Your task to perform on an android device: Search for Italian restaurants on Maps Image 0: 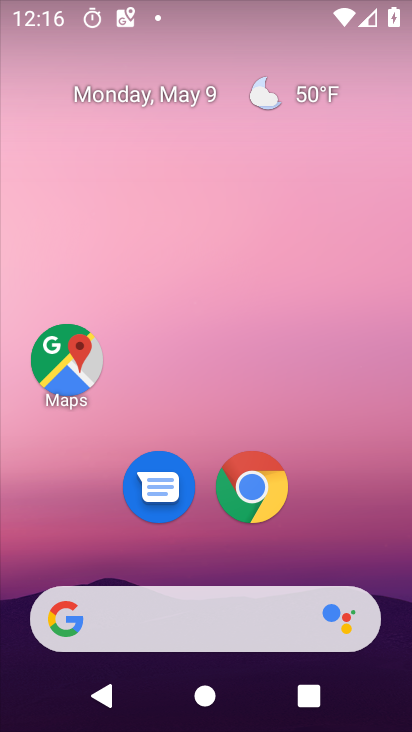
Step 0: click (76, 370)
Your task to perform on an android device: Search for Italian restaurants on Maps Image 1: 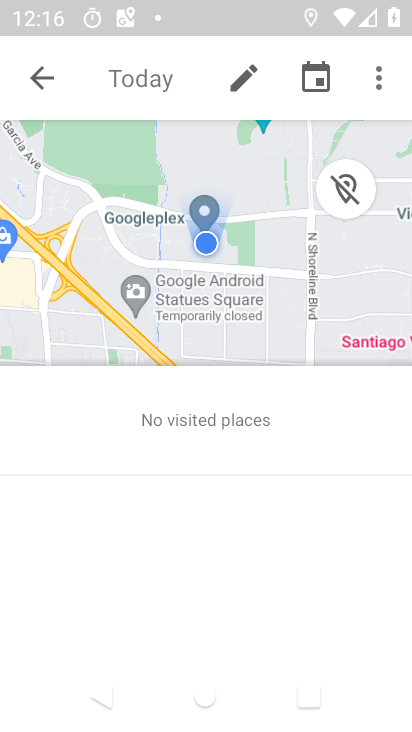
Step 1: press back button
Your task to perform on an android device: Search for Italian restaurants on Maps Image 2: 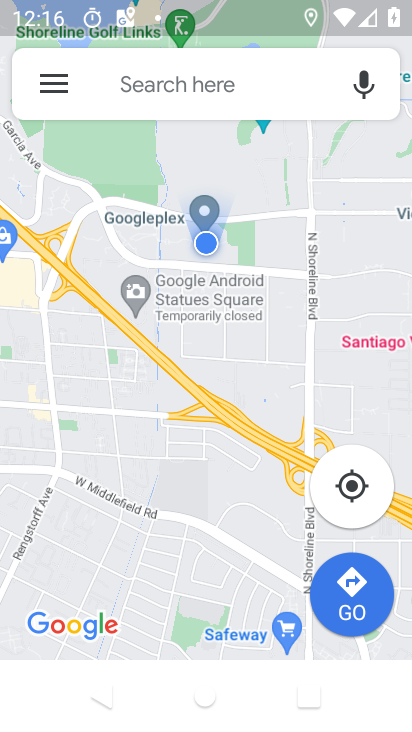
Step 2: click (169, 85)
Your task to perform on an android device: Search for Italian restaurants on Maps Image 3: 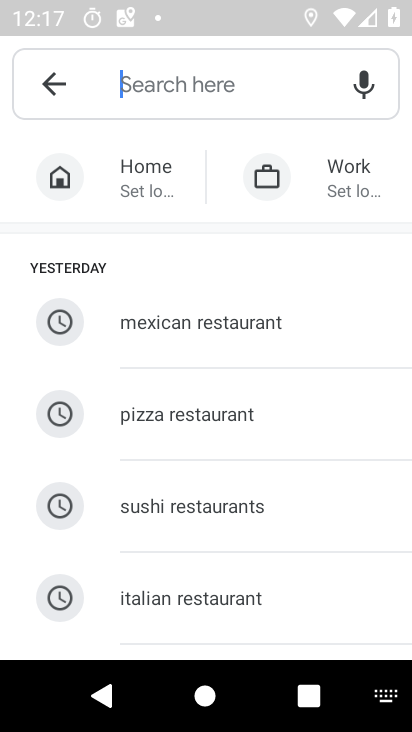
Step 3: click (237, 599)
Your task to perform on an android device: Search for Italian restaurants on Maps Image 4: 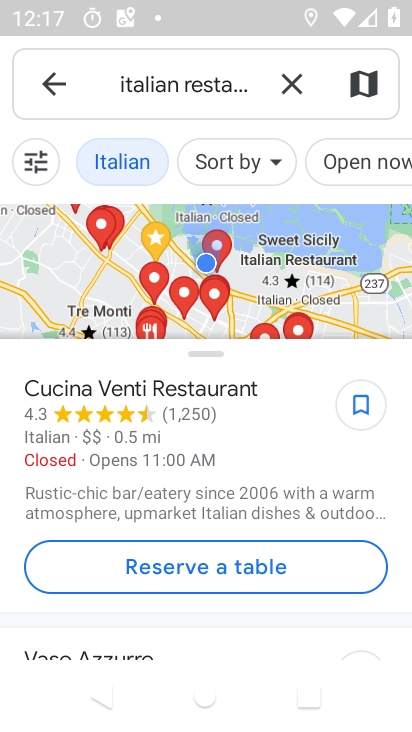
Step 4: task complete